Your task to perform on an android device: What's on my calendar tomorrow? Image 0: 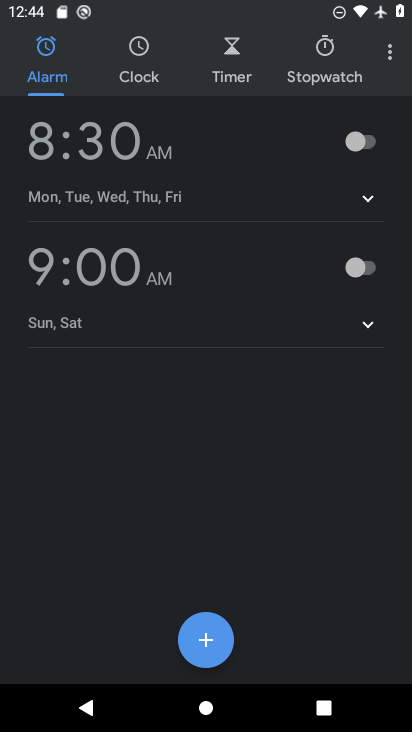
Step 0: press home button
Your task to perform on an android device: What's on my calendar tomorrow? Image 1: 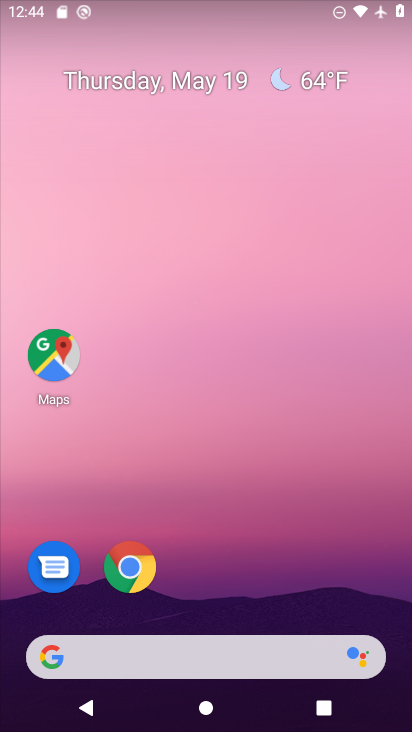
Step 1: drag from (236, 546) to (260, 151)
Your task to perform on an android device: What's on my calendar tomorrow? Image 2: 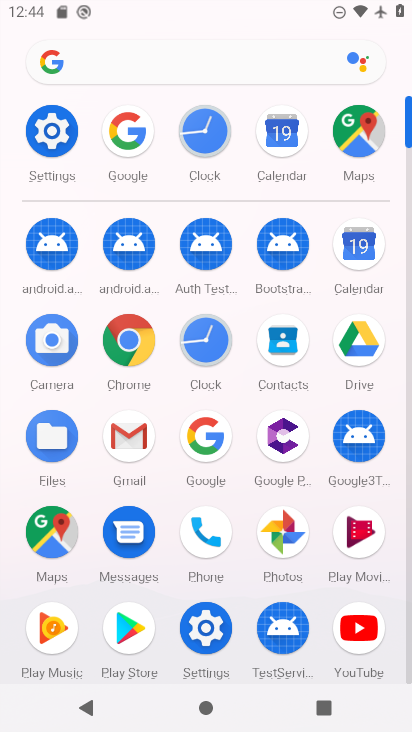
Step 2: click (357, 249)
Your task to perform on an android device: What's on my calendar tomorrow? Image 3: 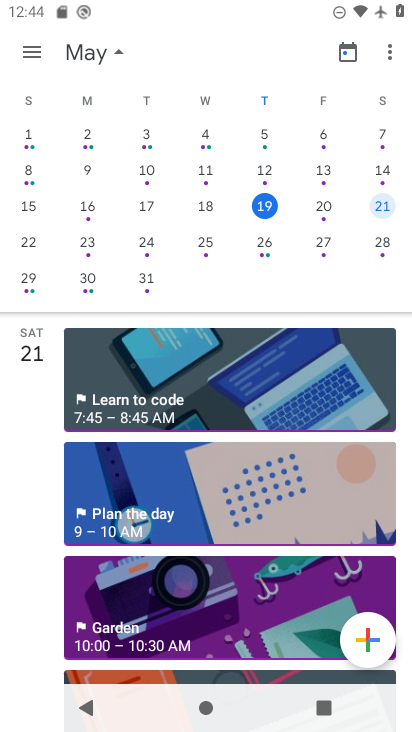
Step 3: click (323, 210)
Your task to perform on an android device: What's on my calendar tomorrow? Image 4: 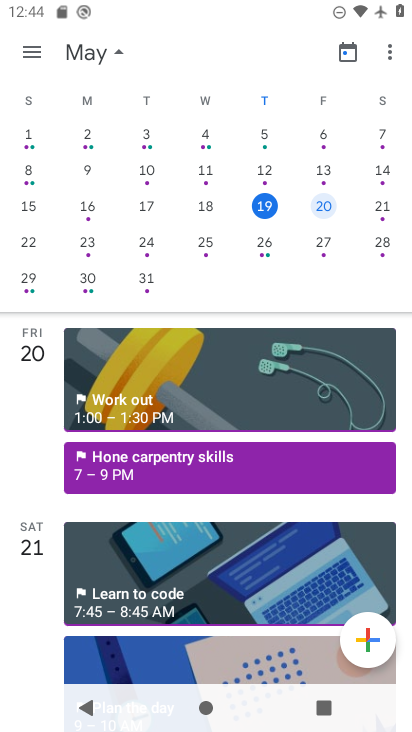
Step 4: task complete